Your task to perform on an android device: see creations saved in the google photos Image 0: 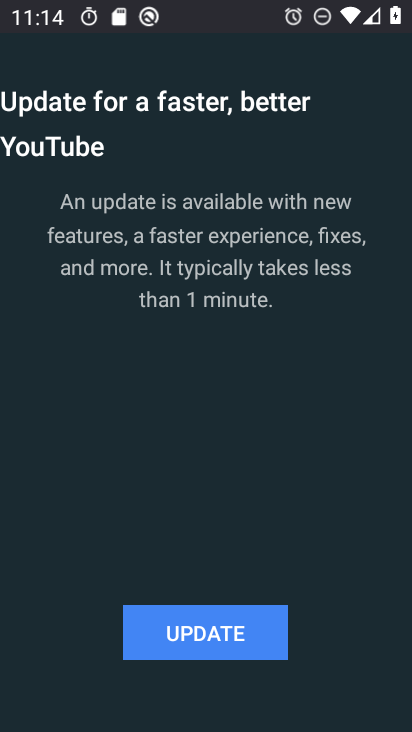
Step 0: press home button
Your task to perform on an android device: see creations saved in the google photos Image 1: 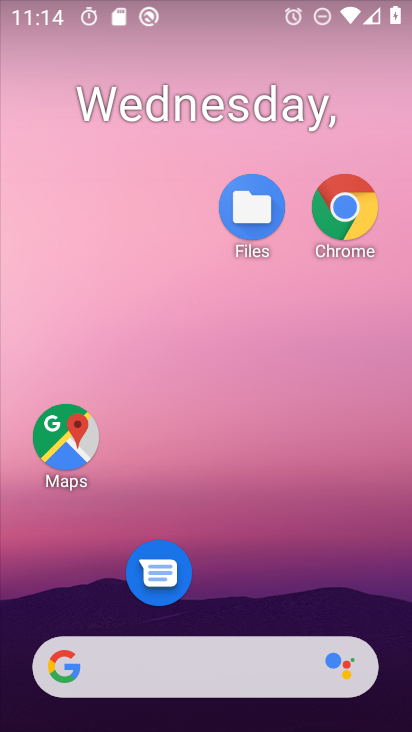
Step 1: drag from (137, 709) to (258, 226)
Your task to perform on an android device: see creations saved in the google photos Image 2: 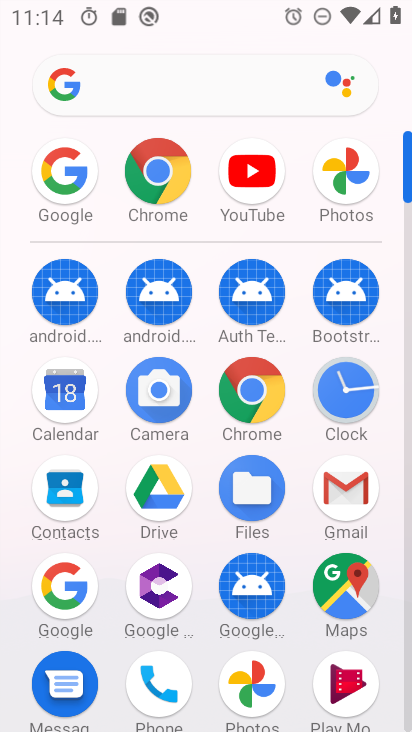
Step 2: click (241, 679)
Your task to perform on an android device: see creations saved in the google photos Image 3: 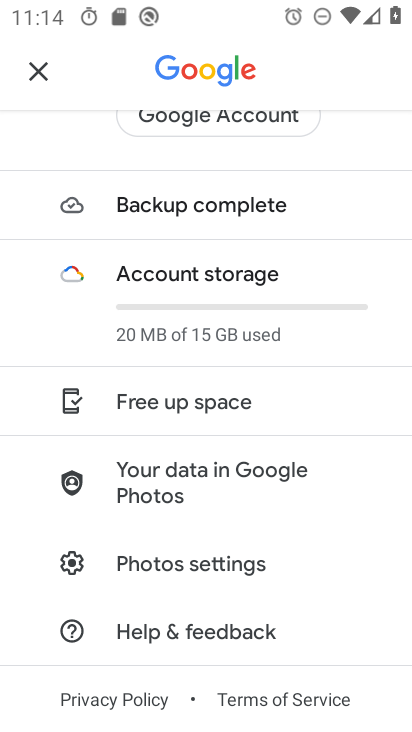
Step 3: click (51, 69)
Your task to perform on an android device: see creations saved in the google photos Image 4: 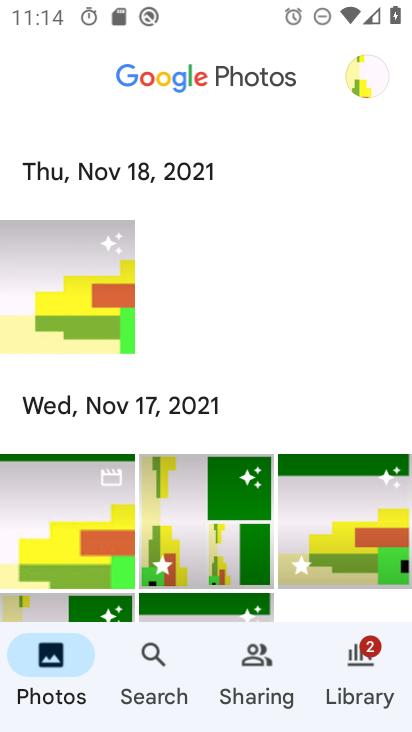
Step 4: click (353, 691)
Your task to perform on an android device: see creations saved in the google photos Image 5: 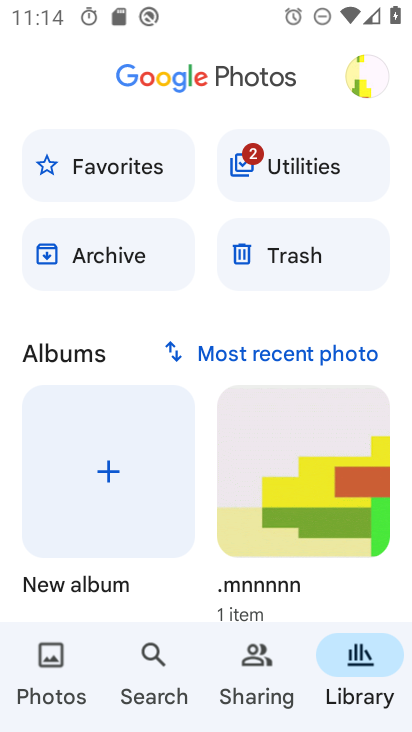
Step 5: task complete